Your task to perform on an android device: Open eBay Image 0: 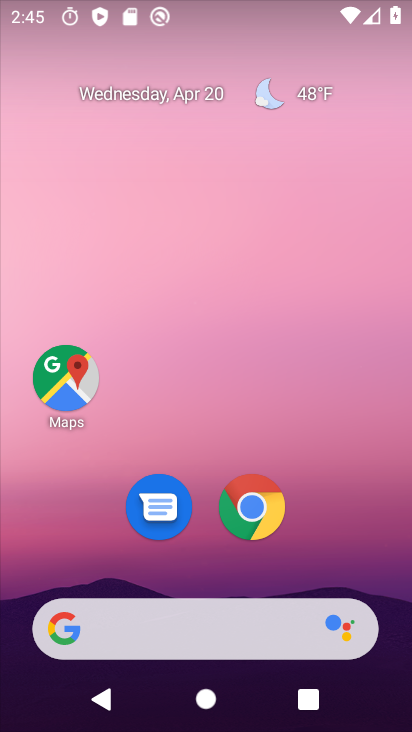
Step 0: click (274, 515)
Your task to perform on an android device: Open eBay Image 1: 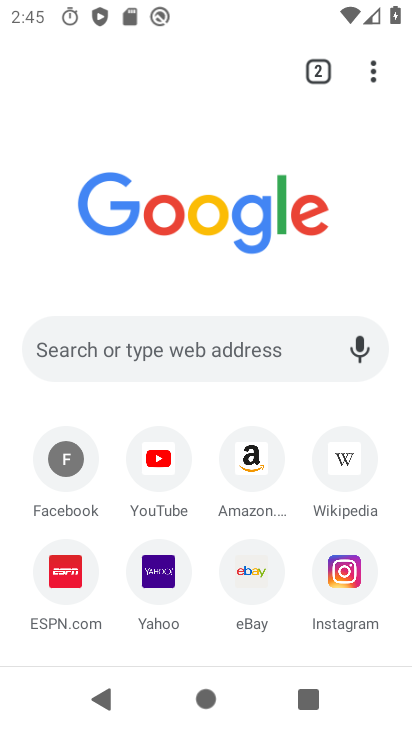
Step 1: click (216, 353)
Your task to perform on an android device: Open eBay Image 2: 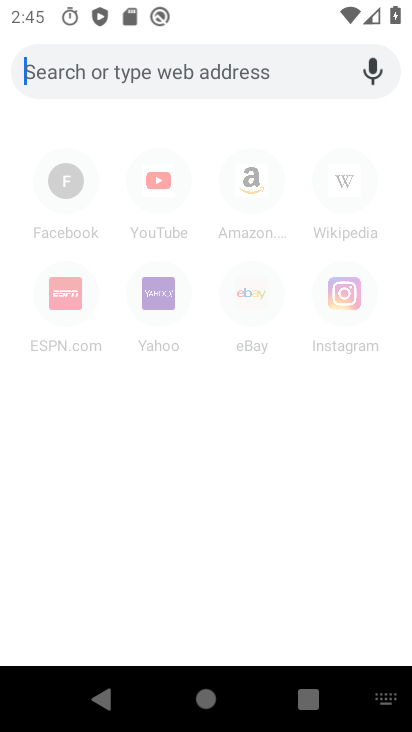
Step 2: click (270, 301)
Your task to perform on an android device: Open eBay Image 3: 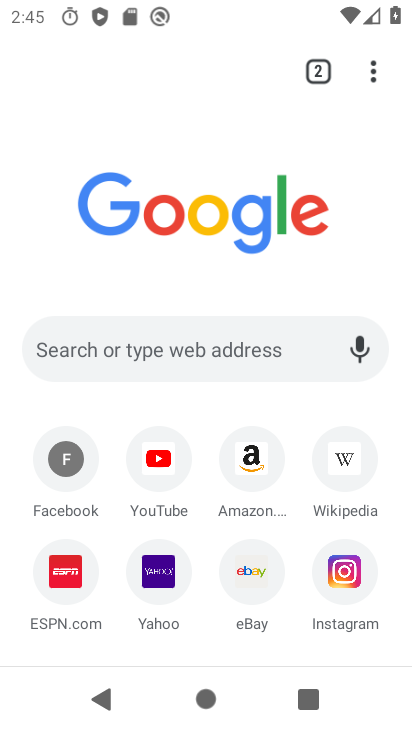
Step 3: click (262, 561)
Your task to perform on an android device: Open eBay Image 4: 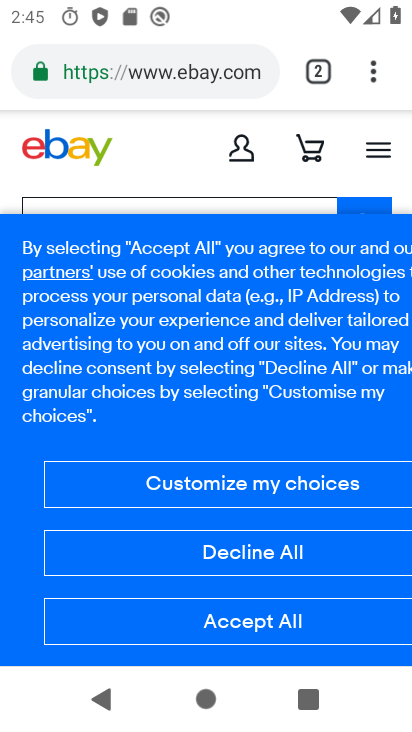
Step 4: task complete